Your task to perform on an android device: snooze an email in the gmail app Image 0: 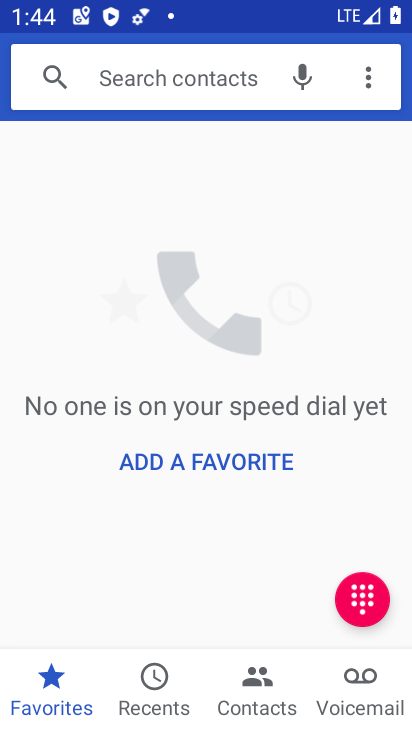
Step 0: press home button
Your task to perform on an android device: snooze an email in the gmail app Image 1: 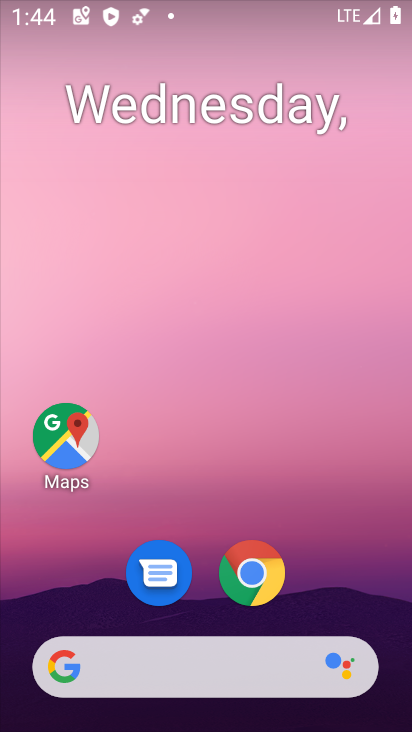
Step 1: drag from (203, 602) to (203, 157)
Your task to perform on an android device: snooze an email in the gmail app Image 2: 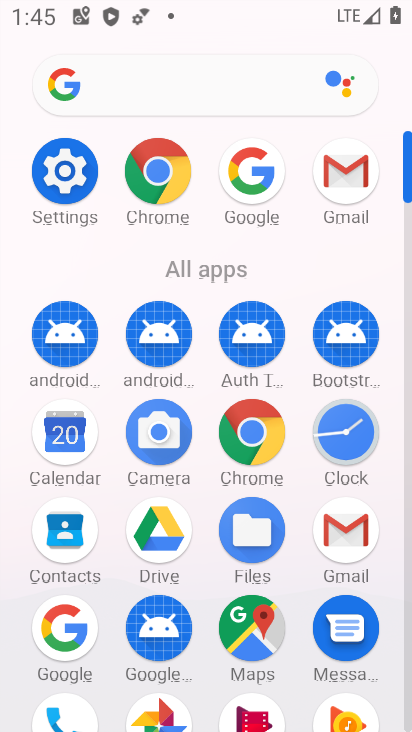
Step 2: click (335, 173)
Your task to perform on an android device: snooze an email in the gmail app Image 3: 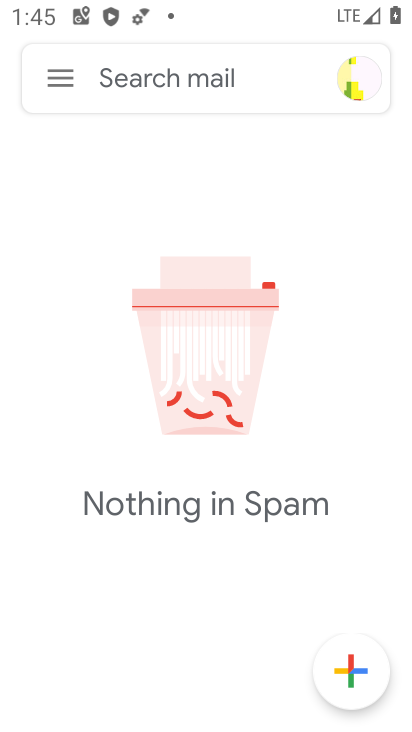
Step 3: click (58, 77)
Your task to perform on an android device: snooze an email in the gmail app Image 4: 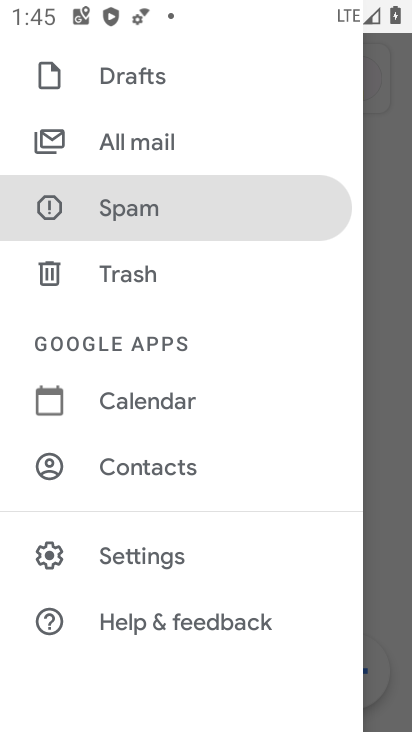
Step 4: click (149, 148)
Your task to perform on an android device: snooze an email in the gmail app Image 5: 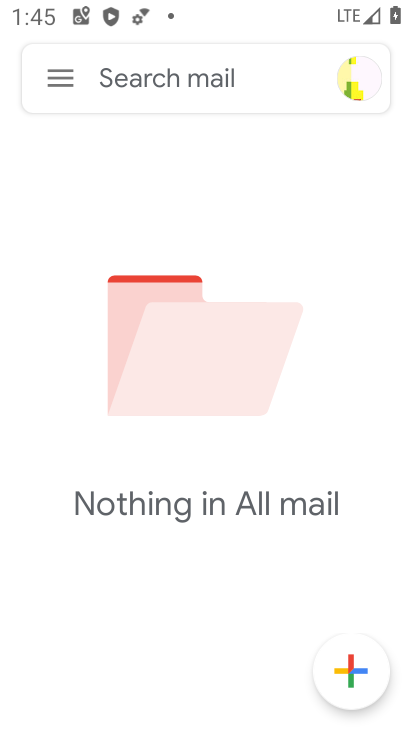
Step 5: task complete